Your task to perform on an android device: Open Wikipedia Image 0: 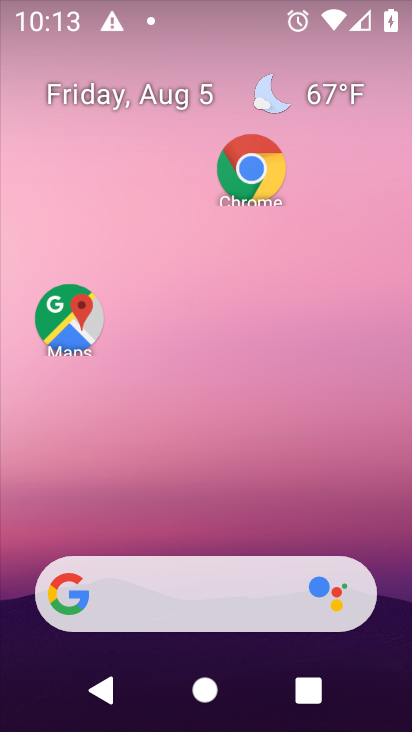
Step 0: click (230, 188)
Your task to perform on an android device: Open Wikipedia Image 1: 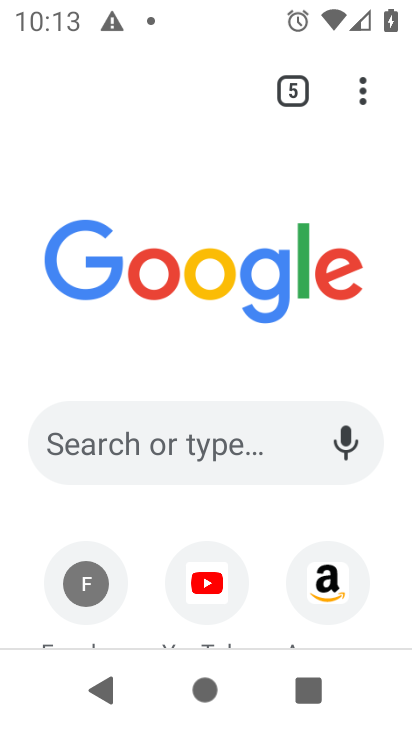
Step 1: click (286, 102)
Your task to perform on an android device: Open Wikipedia Image 2: 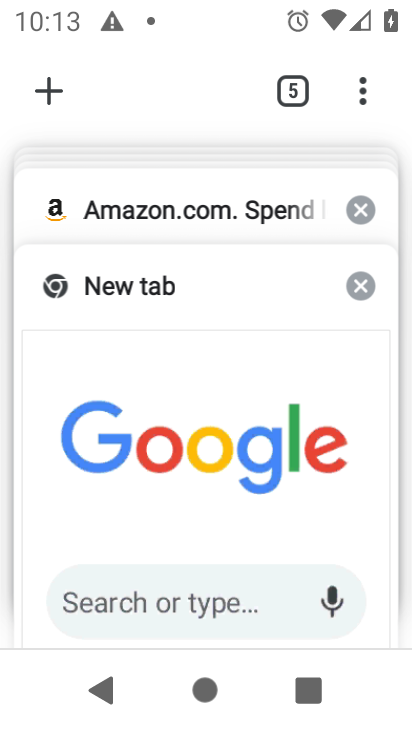
Step 2: click (50, 87)
Your task to perform on an android device: Open Wikipedia Image 3: 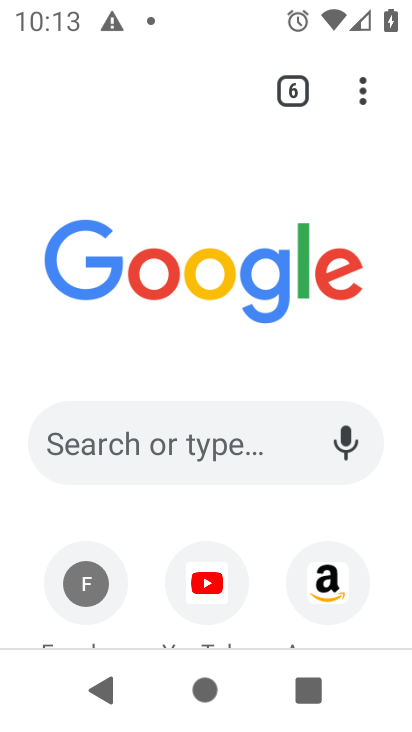
Step 3: drag from (221, 496) to (212, 193)
Your task to perform on an android device: Open Wikipedia Image 4: 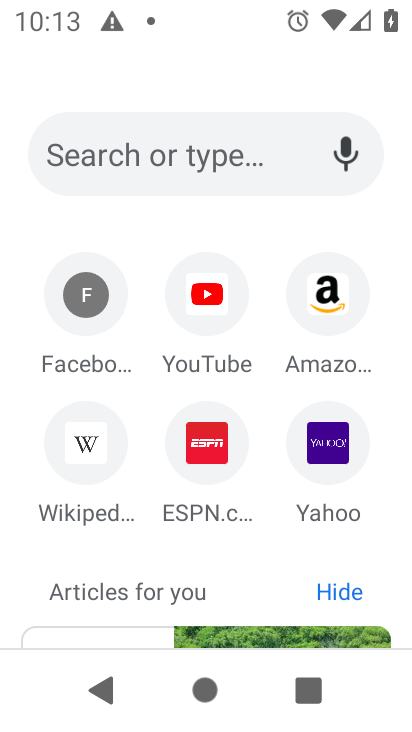
Step 4: click (56, 453)
Your task to perform on an android device: Open Wikipedia Image 5: 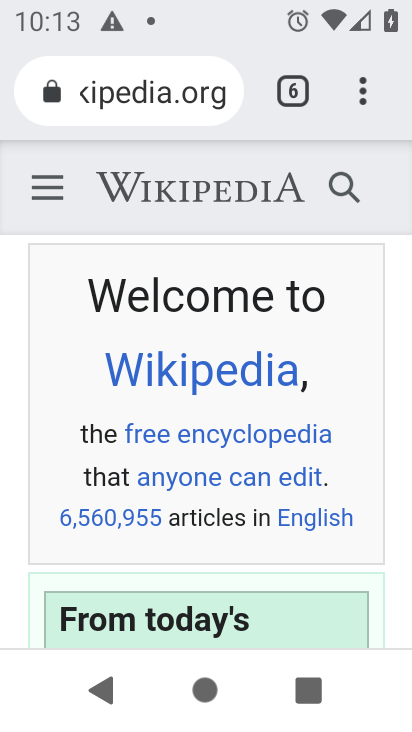
Step 5: task complete